Your task to perform on an android device: Show me popular games on the Play Store Image 0: 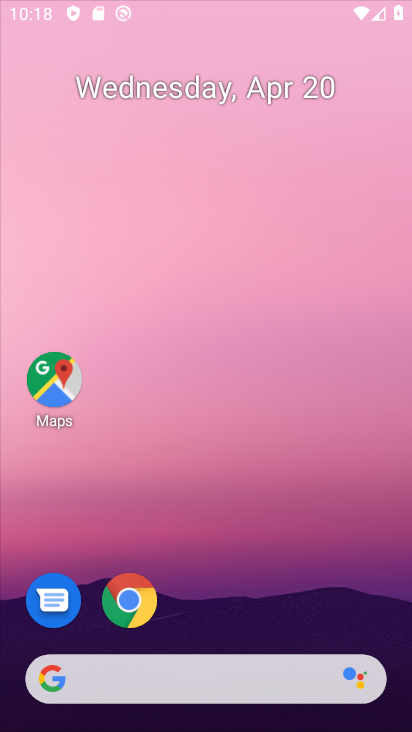
Step 0: click (331, 127)
Your task to perform on an android device: Show me popular games on the Play Store Image 1: 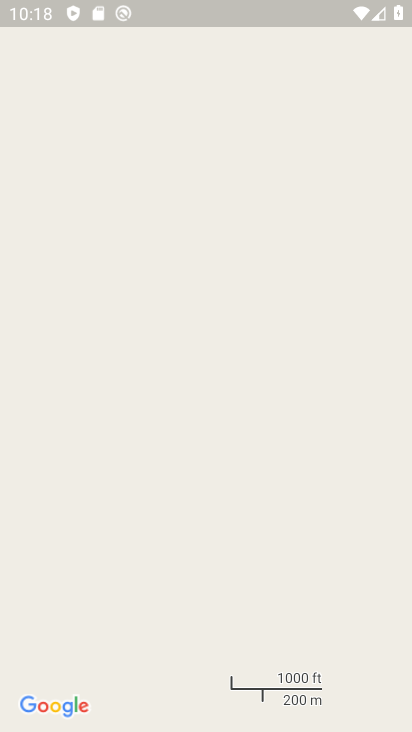
Step 1: press home button
Your task to perform on an android device: Show me popular games on the Play Store Image 2: 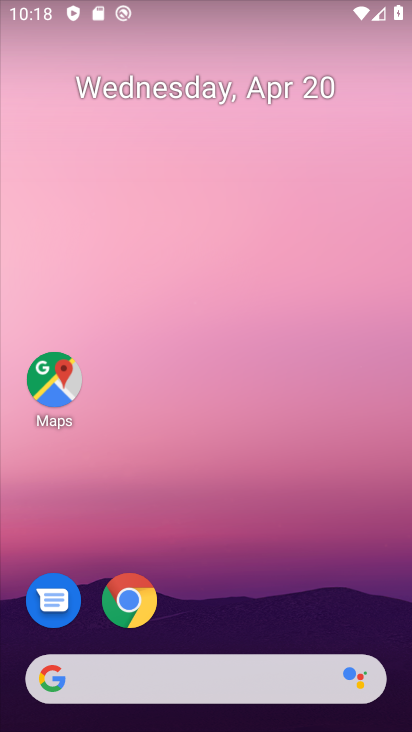
Step 2: drag from (294, 459) to (285, 138)
Your task to perform on an android device: Show me popular games on the Play Store Image 3: 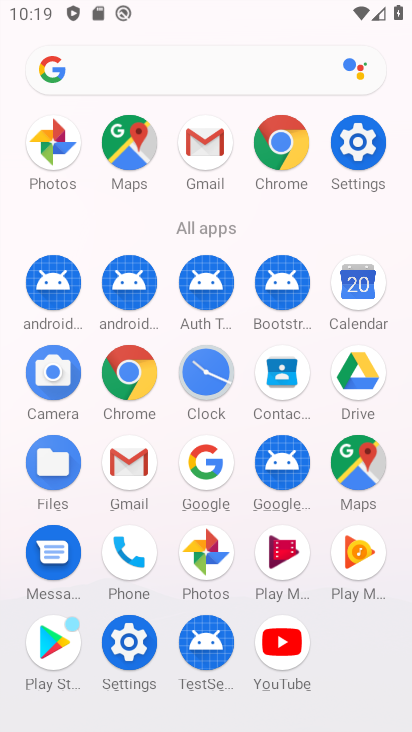
Step 3: click (52, 633)
Your task to perform on an android device: Show me popular games on the Play Store Image 4: 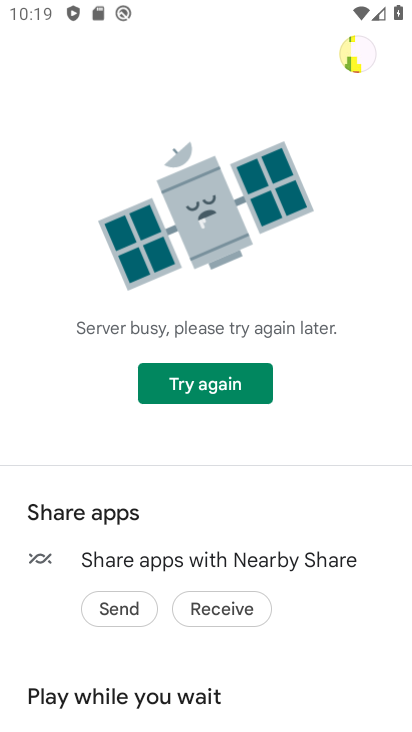
Step 4: task complete